Your task to perform on an android device: Open privacy settings Image 0: 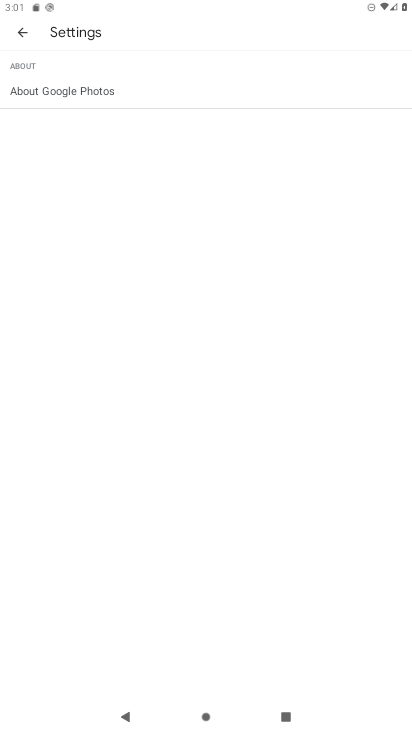
Step 0: press home button
Your task to perform on an android device: Open privacy settings Image 1: 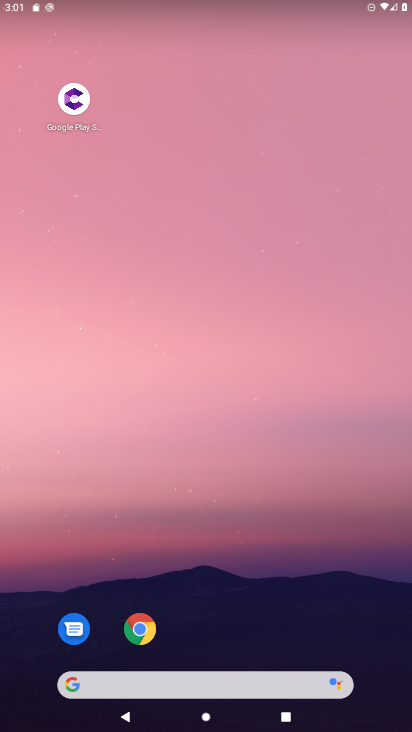
Step 1: drag from (277, 618) to (226, 58)
Your task to perform on an android device: Open privacy settings Image 2: 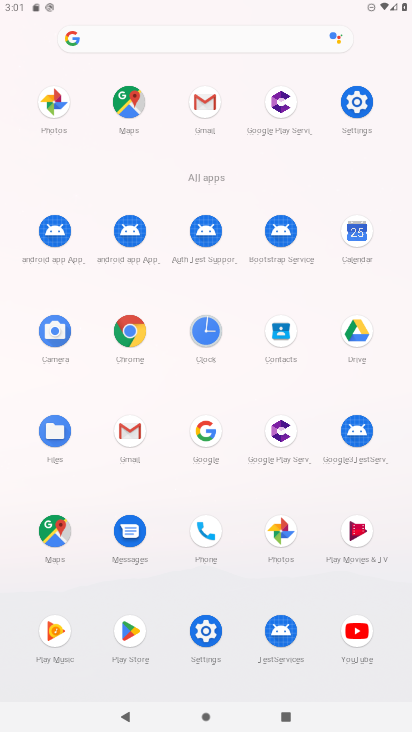
Step 2: click (354, 96)
Your task to perform on an android device: Open privacy settings Image 3: 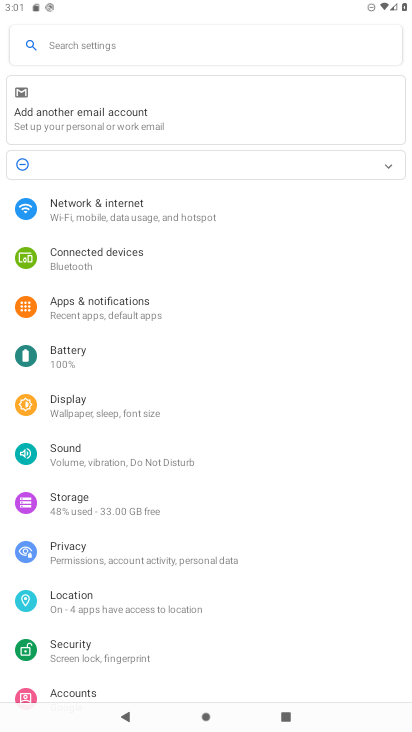
Step 3: click (116, 550)
Your task to perform on an android device: Open privacy settings Image 4: 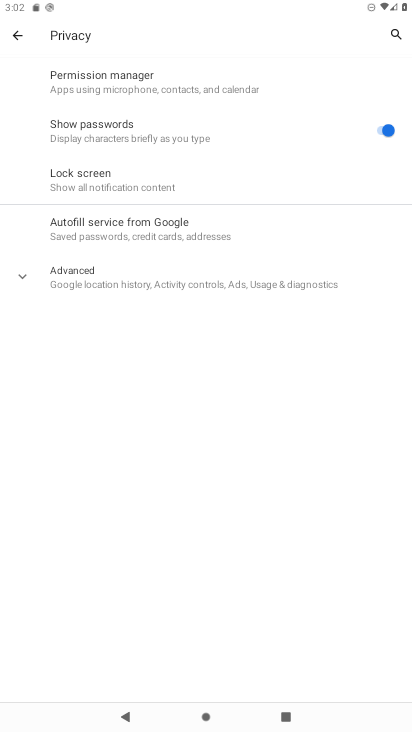
Step 4: task complete